Your task to perform on an android device: turn off improve location accuracy Image 0: 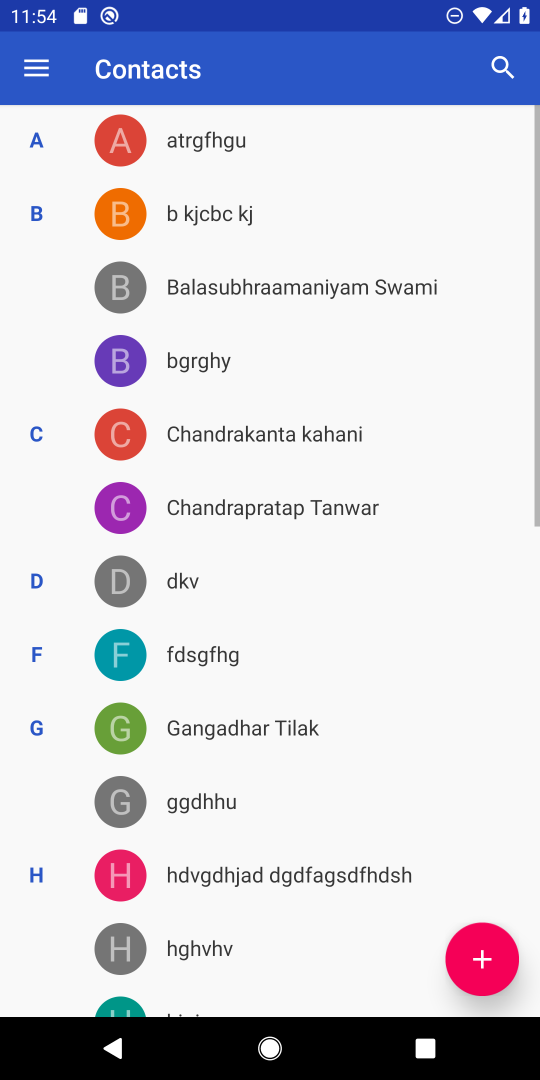
Step 0: press back button
Your task to perform on an android device: turn off improve location accuracy Image 1: 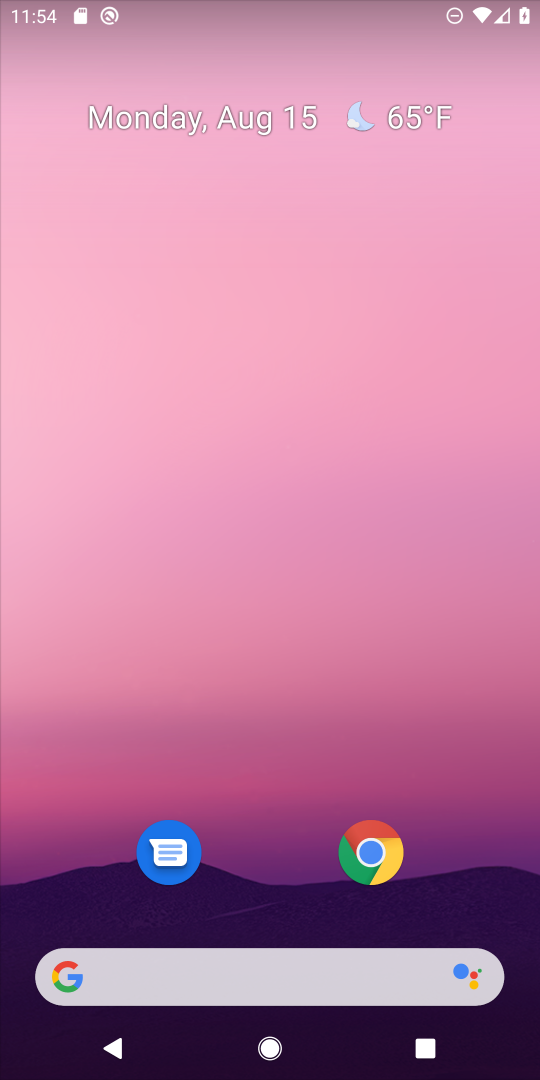
Step 1: drag from (242, 894) to (333, 57)
Your task to perform on an android device: turn off improve location accuracy Image 2: 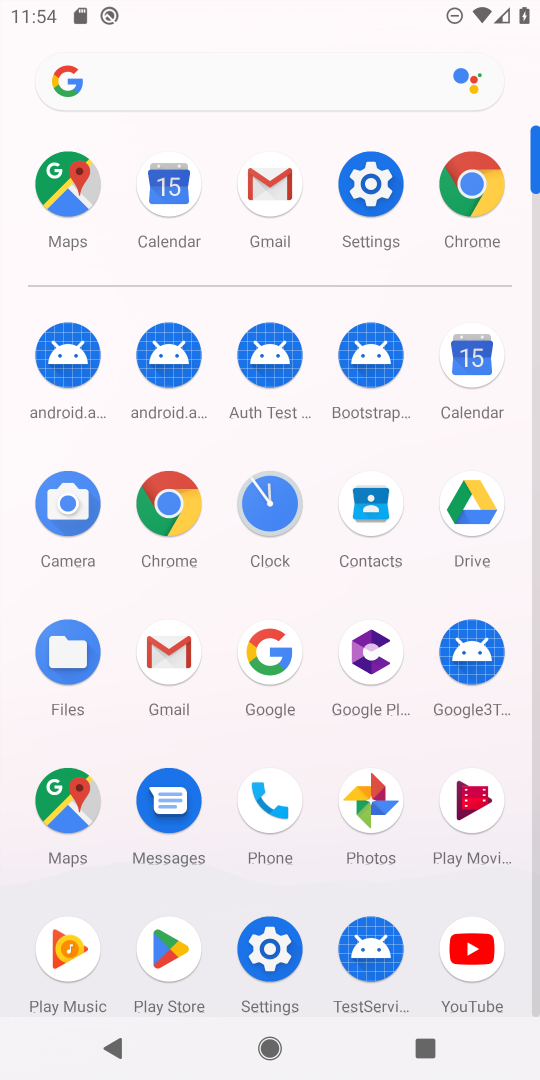
Step 2: click (387, 191)
Your task to perform on an android device: turn off improve location accuracy Image 3: 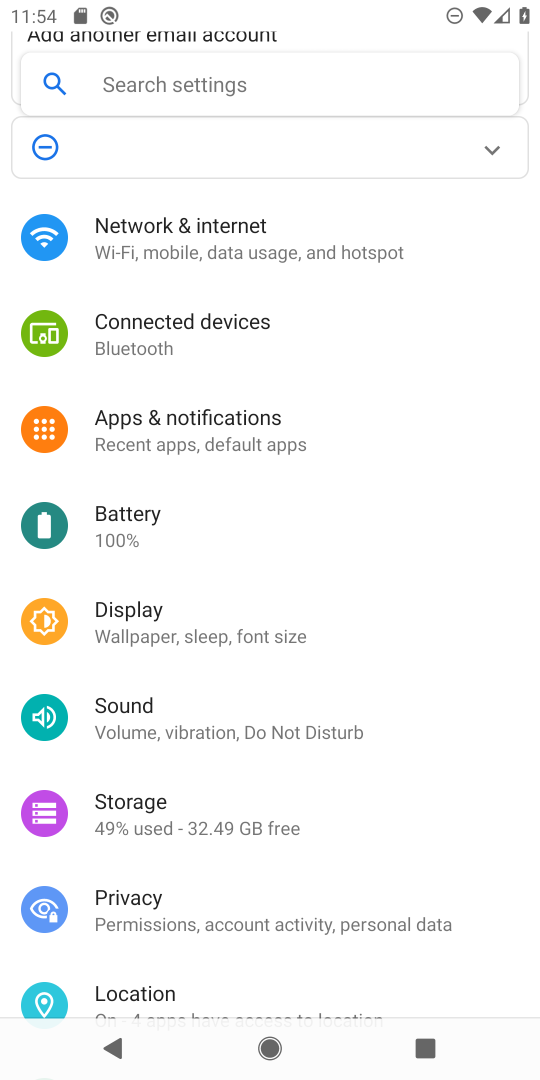
Step 3: click (178, 1003)
Your task to perform on an android device: turn off improve location accuracy Image 4: 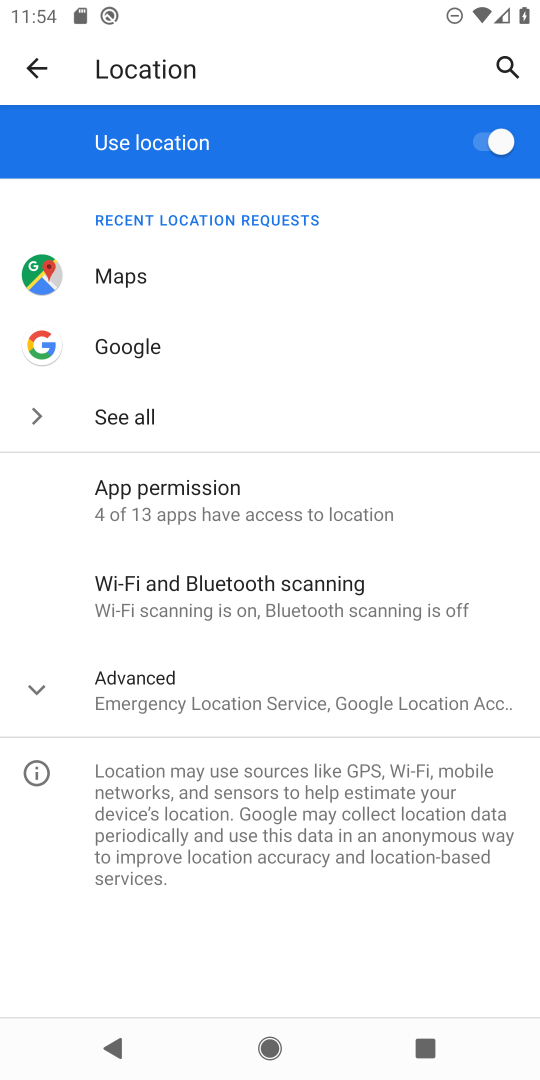
Step 4: click (182, 701)
Your task to perform on an android device: turn off improve location accuracy Image 5: 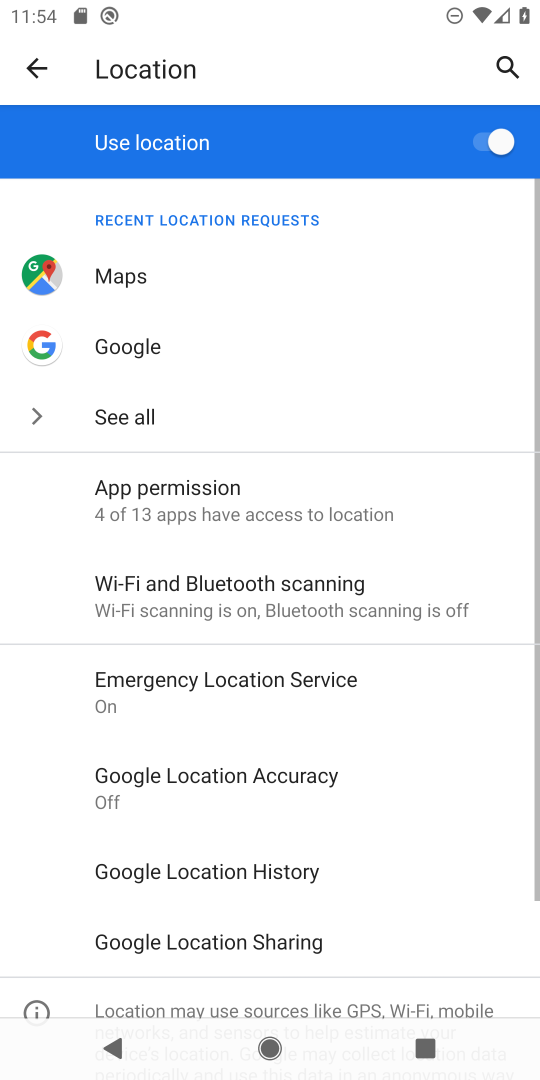
Step 5: click (238, 774)
Your task to perform on an android device: turn off improve location accuracy Image 6: 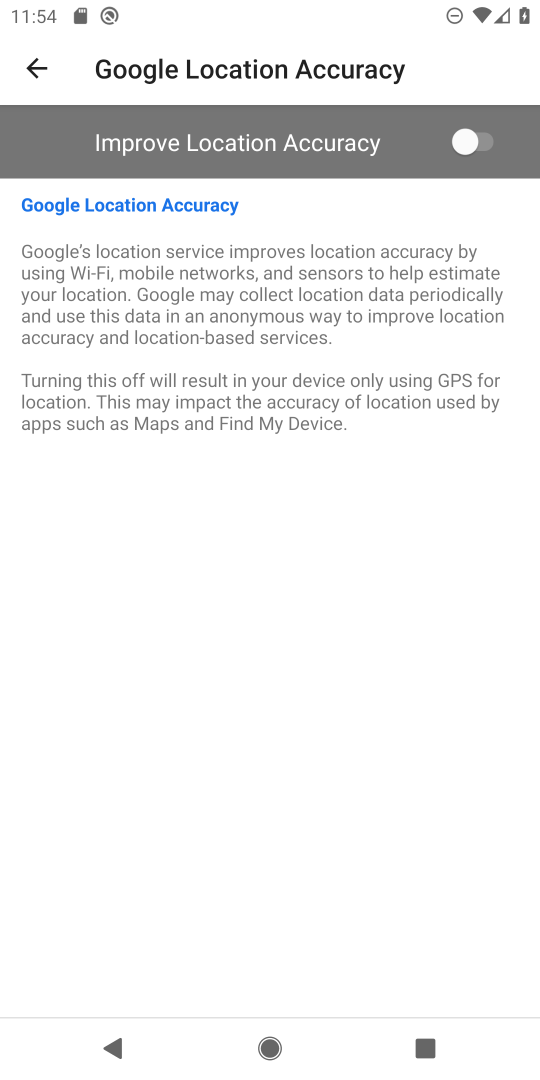
Step 6: task complete